Your task to perform on an android device: move an email to a new category in the gmail app Image 0: 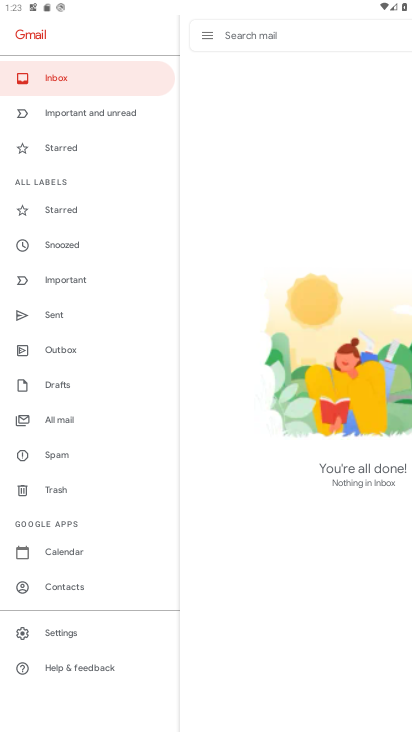
Step 0: drag from (319, 633) to (139, 569)
Your task to perform on an android device: move an email to a new category in the gmail app Image 1: 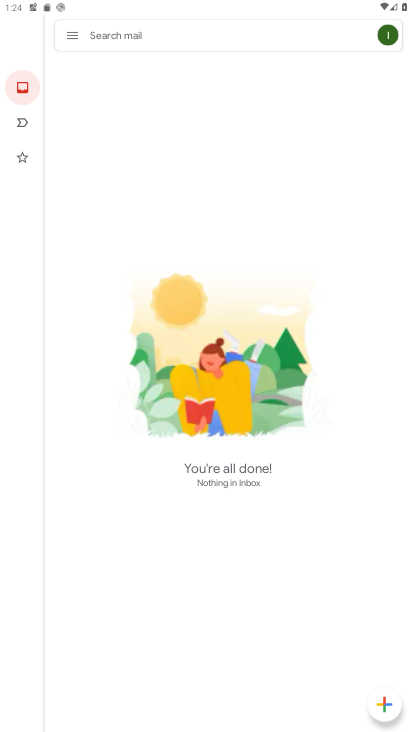
Step 1: click (62, 38)
Your task to perform on an android device: move an email to a new category in the gmail app Image 2: 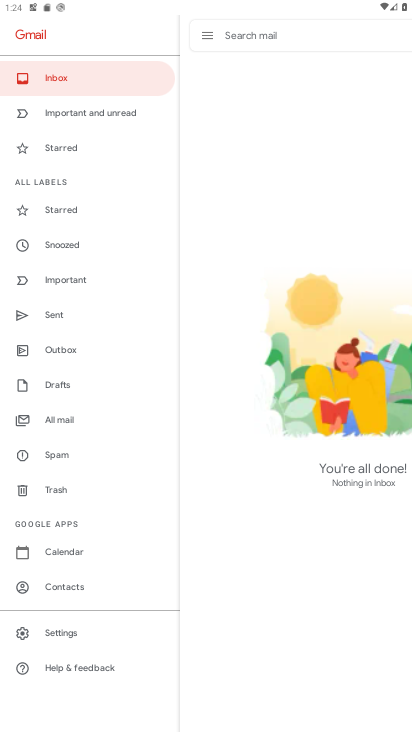
Step 2: click (279, 130)
Your task to perform on an android device: move an email to a new category in the gmail app Image 3: 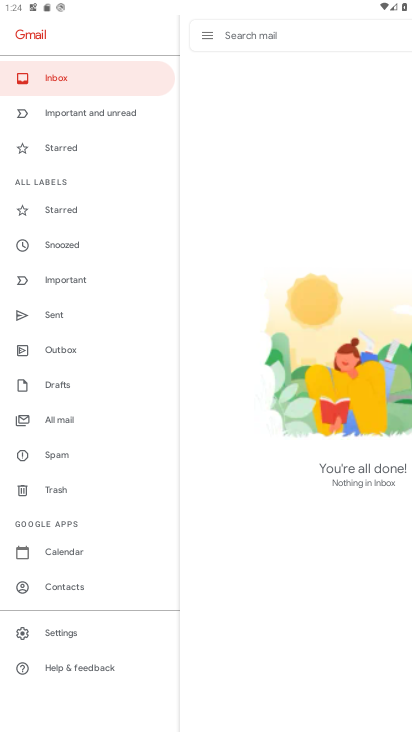
Step 3: task complete